Your task to perform on an android device: delete the emails in spam in the gmail app Image 0: 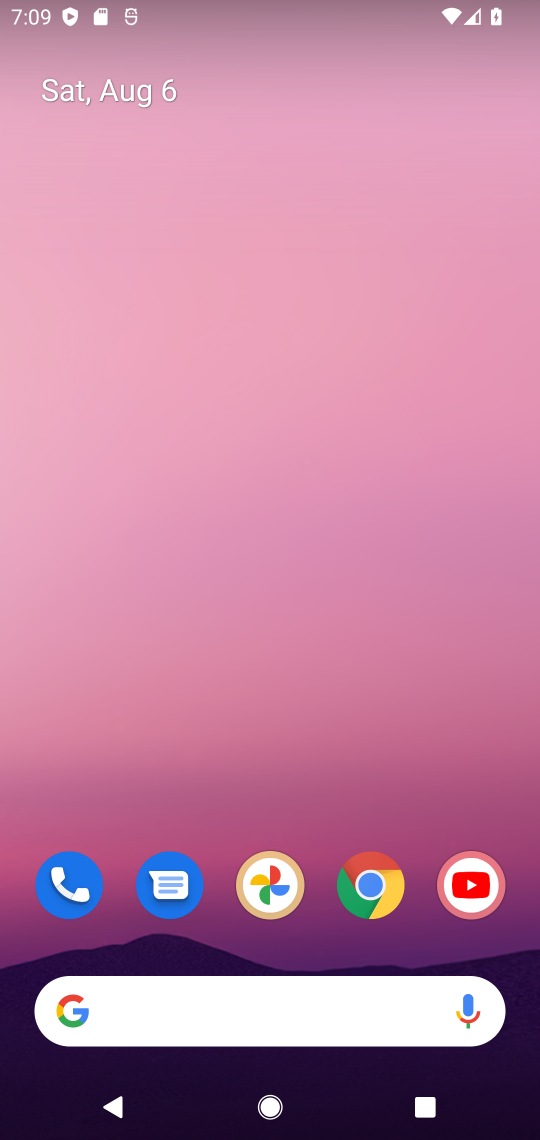
Step 0: drag from (327, 220) to (361, 24)
Your task to perform on an android device: delete the emails in spam in the gmail app Image 1: 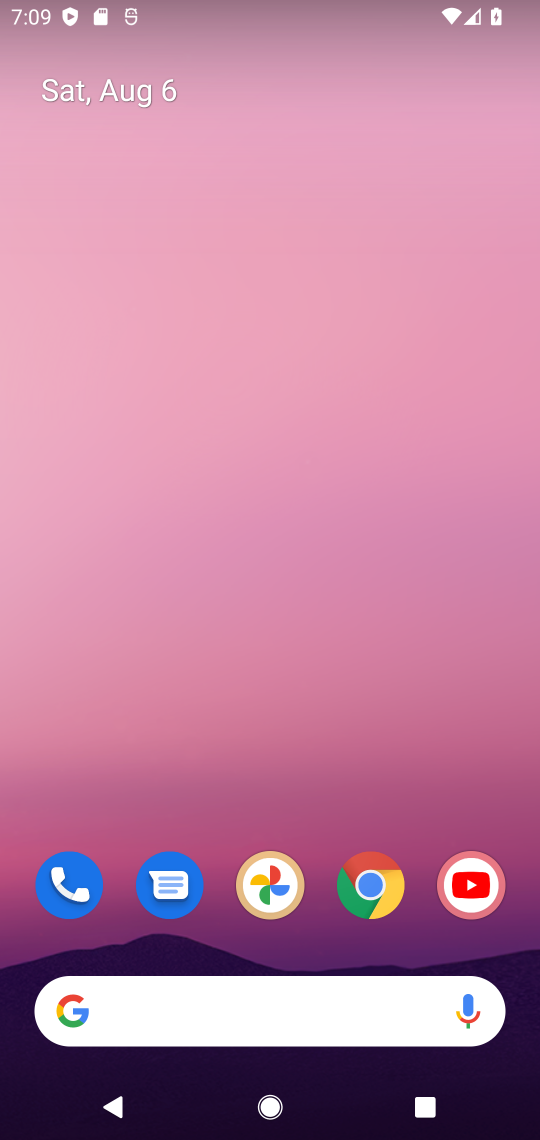
Step 1: drag from (221, 332) to (164, 4)
Your task to perform on an android device: delete the emails in spam in the gmail app Image 2: 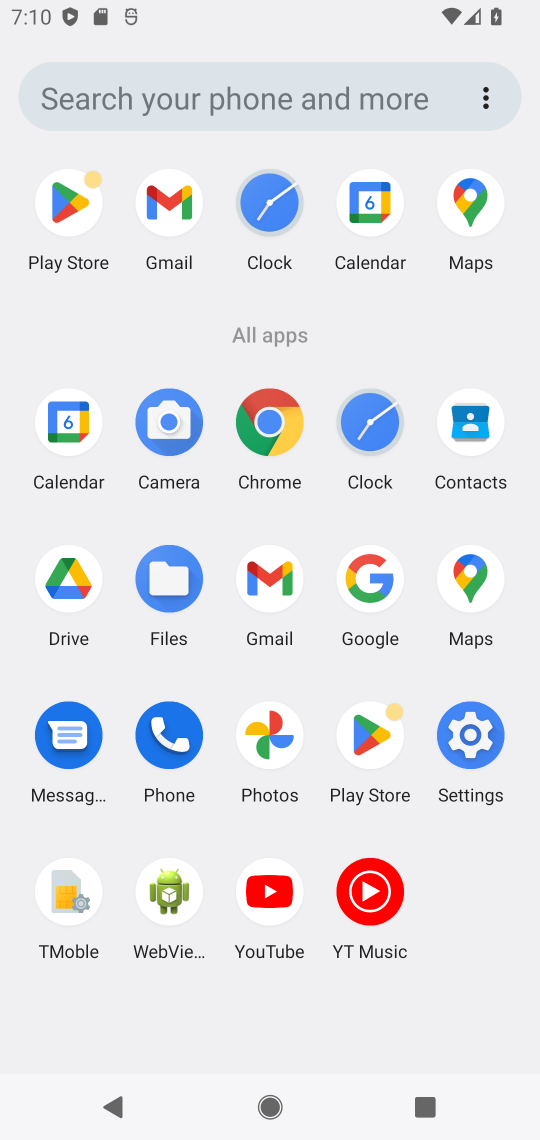
Step 2: click (179, 189)
Your task to perform on an android device: delete the emails in spam in the gmail app Image 3: 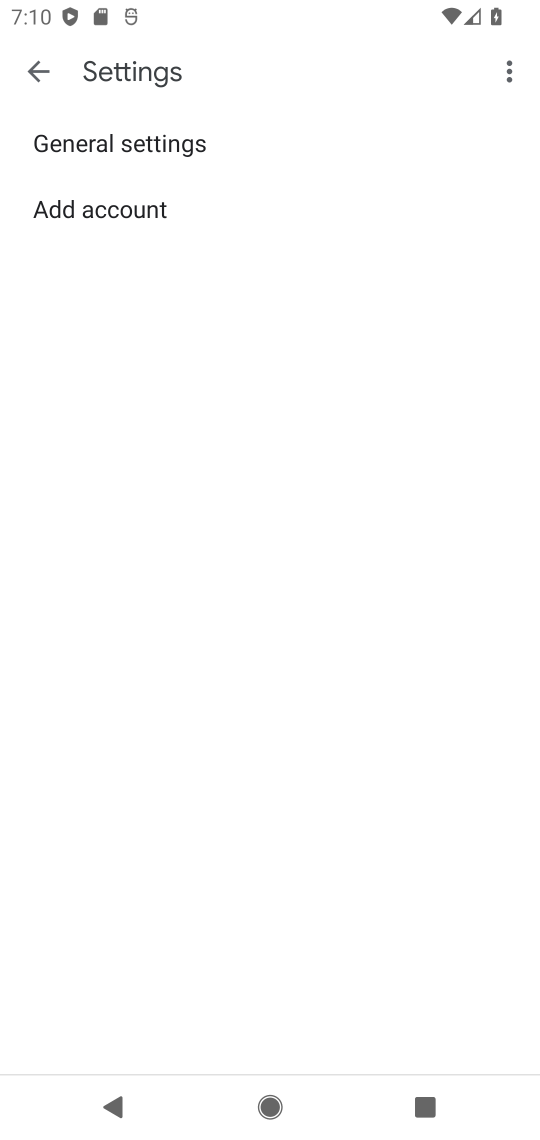
Step 3: click (28, 82)
Your task to perform on an android device: delete the emails in spam in the gmail app Image 4: 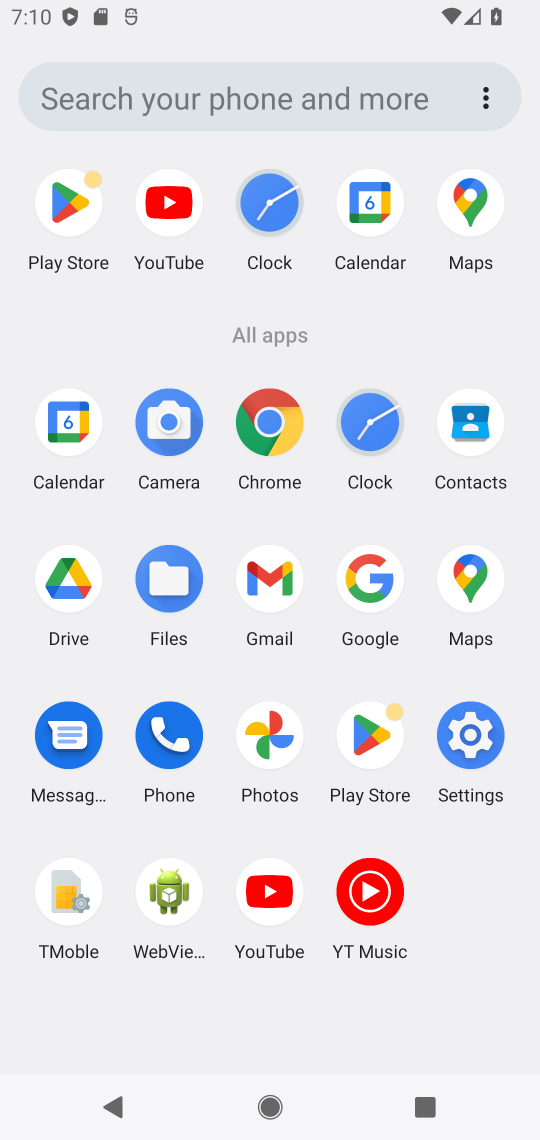
Step 4: click (286, 585)
Your task to perform on an android device: delete the emails in spam in the gmail app Image 5: 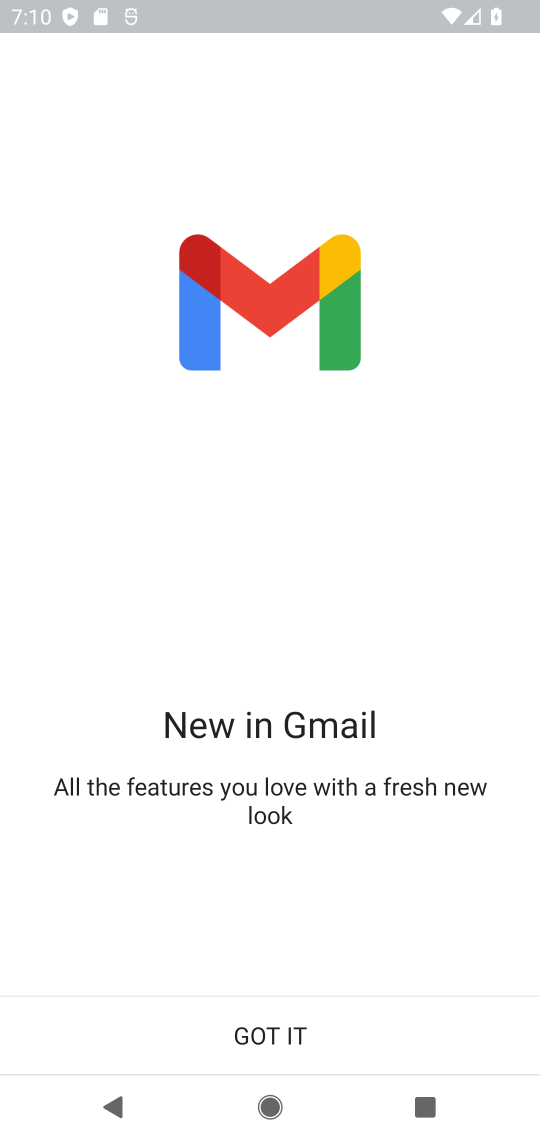
Step 5: click (260, 1043)
Your task to perform on an android device: delete the emails in spam in the gmail app Image 6: 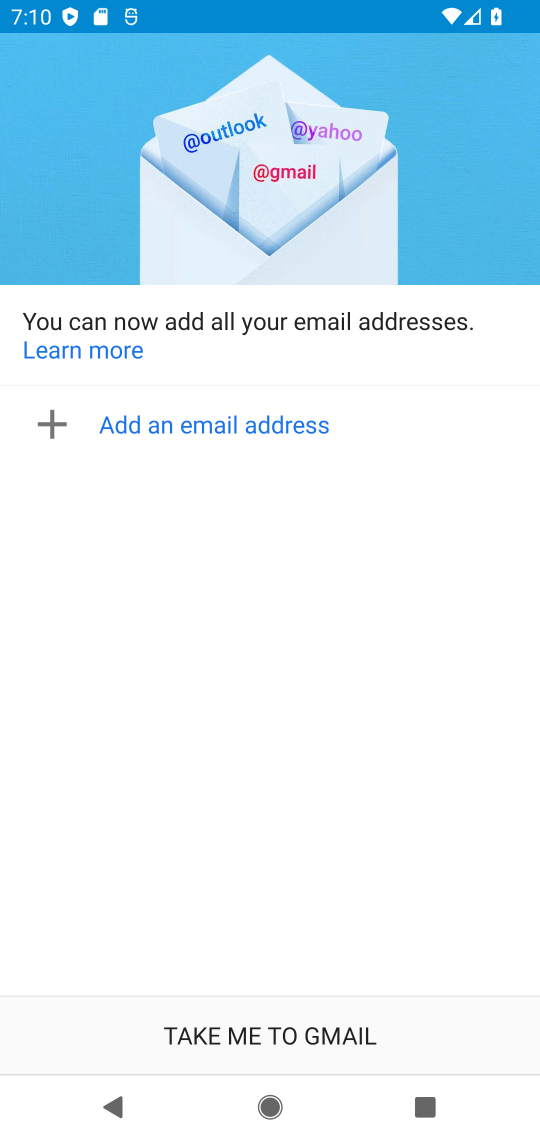
Step 6: click (234, 1039)
Your task to perform on an android device: delete the emails in spam in the gmail app Image 7: 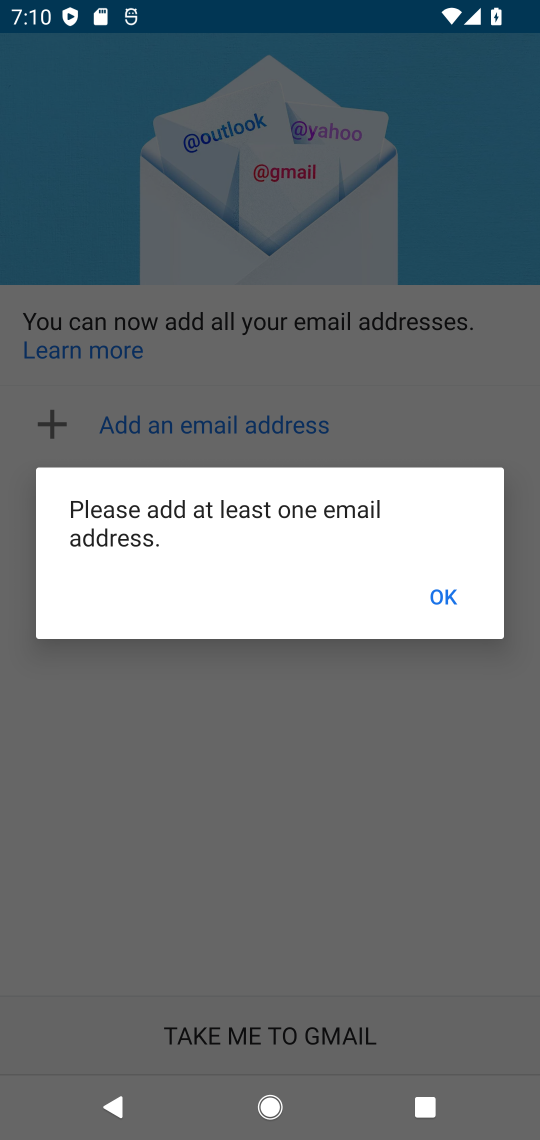
Step 7: task complete